Your task to perform on an android device: Open wifi settings Image 0: 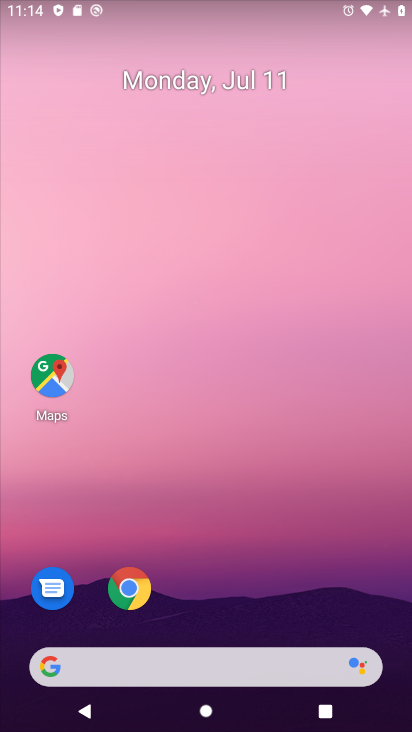
Step 0: press home button
Your task to perform on an android device: Open wifi settings Image 1: 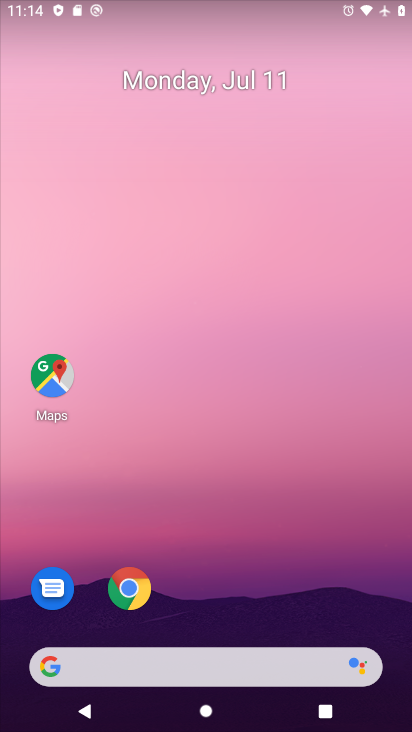
Step 1: drag from (186, 667) to (323, 67)
Your task to perform on an android device: Open wifi settings Image 2: 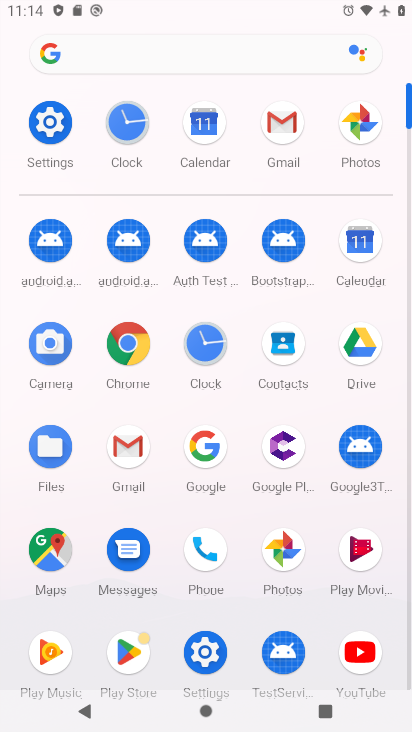
Step 2: click (48, 124)
Your task to perform on an android device: Open wifi settings Image 3: 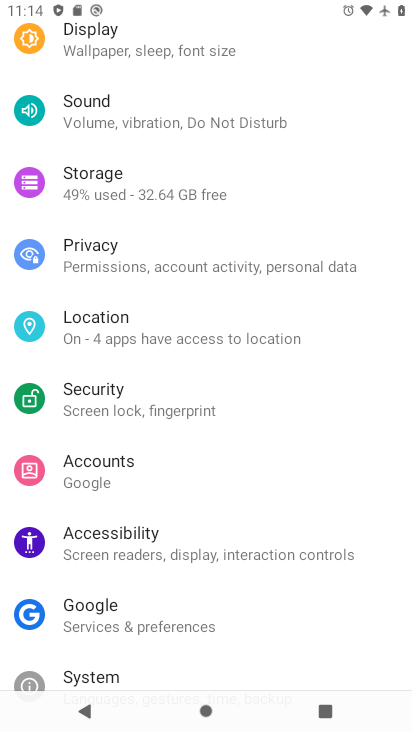
Step 3: drag from (248, 83) to (184, 629)
Your task to perform on an android device: Open wifi settings Image 4: 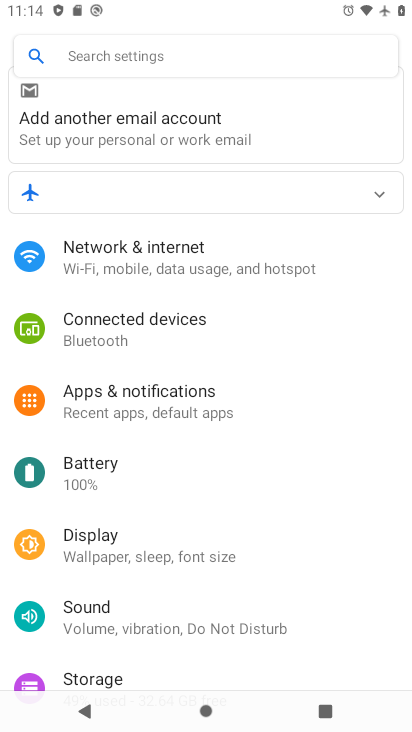
Step 4: click (169, 255)
Your task to perform on an android device: Open wifi settings Image 5: 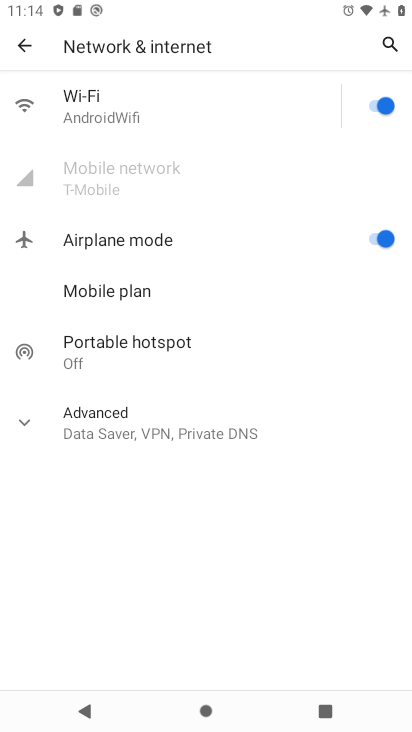
Step 5: click (93, 110)
Your task to perform on an android device: Open wifi settings Image 6: 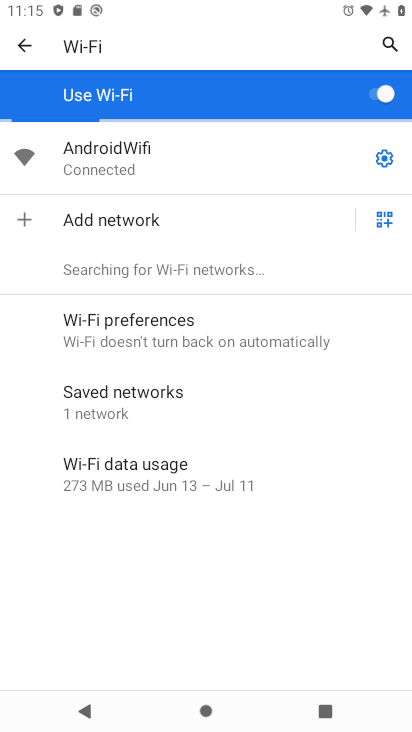
Step 6: task complete